Your task to perform on an android device: delete a single message in the gmail app Image 0: 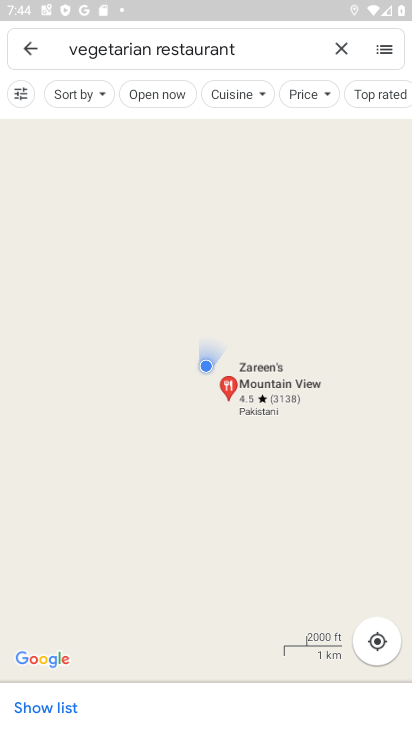
Step 0: press home button
Your task to perform on an android device: delete a single message in the gmail app Image 1: 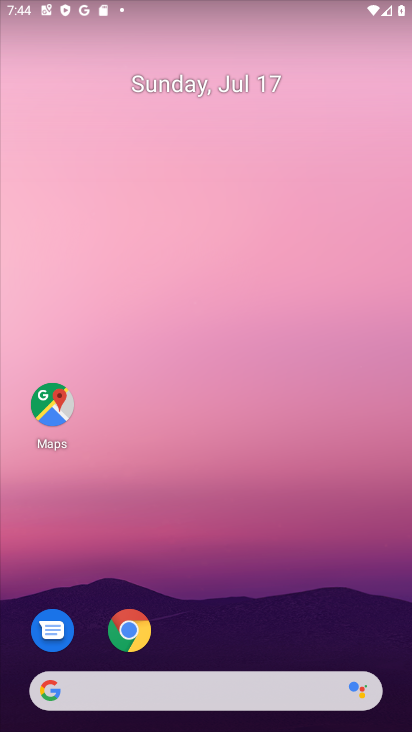
Step 1: drag from (191, 586) to (185, 234)
Your task to perform on an android device: delete a single message in the gmail app Image 2: 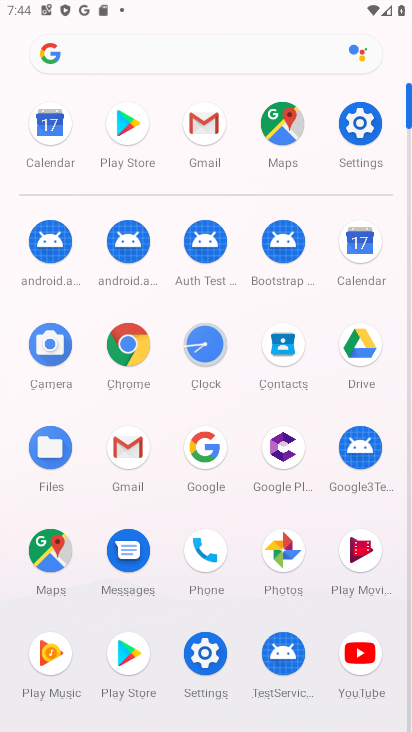
Step 2: click (198, 123)
Your task to perform on an android device: delete a single message in the gmail app Image 3: 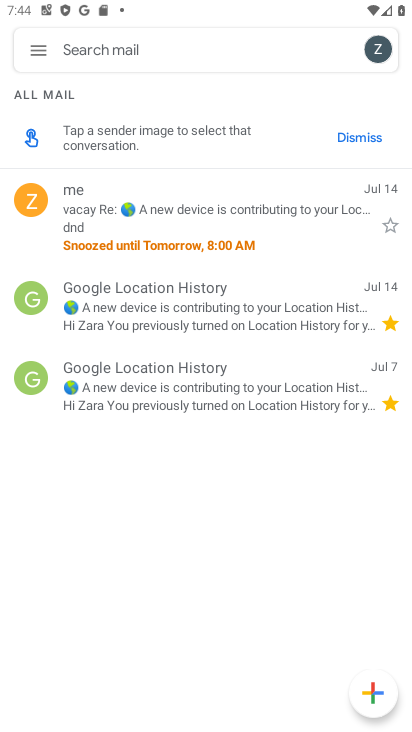
Step 3: click (243, 227)
Your task to perform on an android device: delete a single message in the gmail app Image 4: 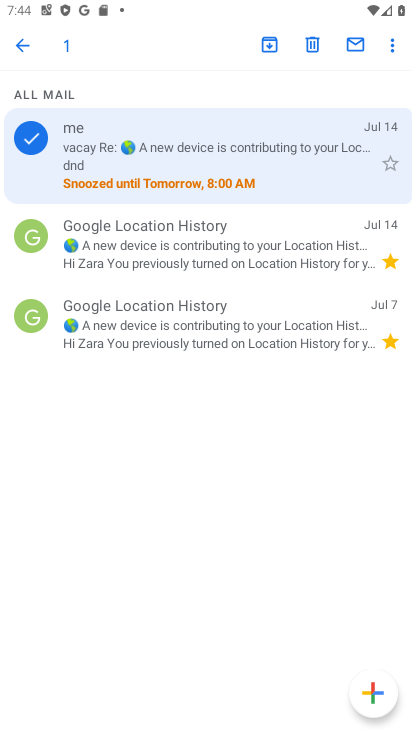
Step 4: click (308, 56)
Your task to perform on an android device: delete a single message in the gmail app Image 5: 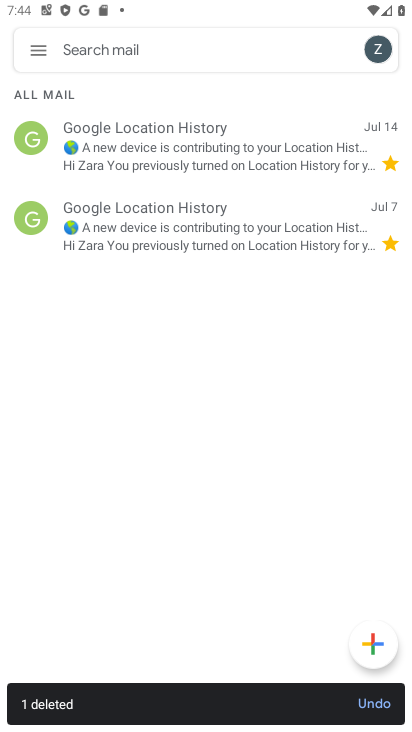
Step 5: task complete